Your task to perform on an android device: Open the calendar app, open the side menu, and click the "Day" option Image 0: 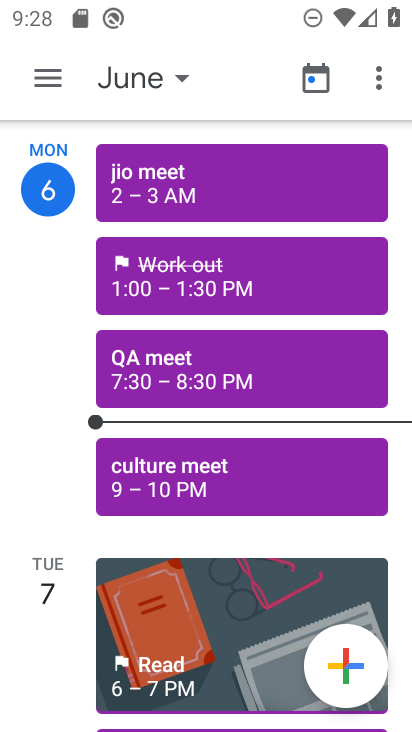
Step 0: click (44, 83)
Your task to perform on an android device: Open the calendar app, open the side menu, and click the "Day" option Image 1: 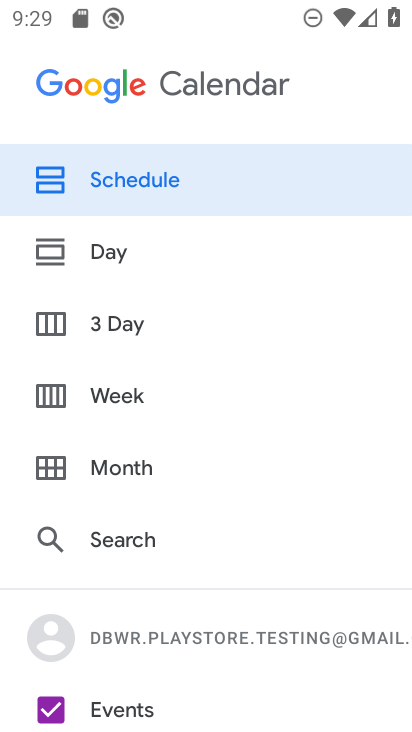
Step 1: click (117, 256)
Your task to perform on an android device: Open the calendar app, open the side menu, and click the "Day" option Image 2: 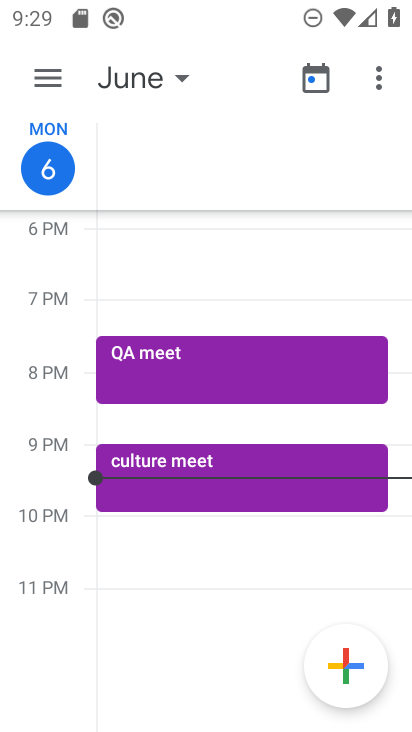
Step 2: task complete